Your task to perform on an android device: toggle data saver in the chrome app Image 0: 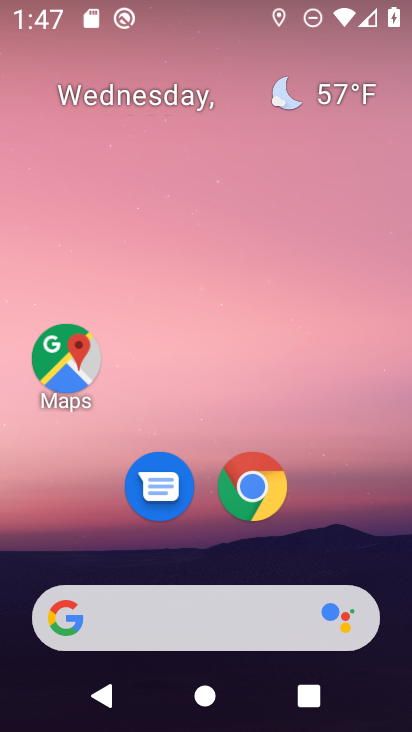
Step 0: drag from (349, 538) to (360, 76)
Your task to perform on an android device: toggle data saver in the chrome app Image 1: 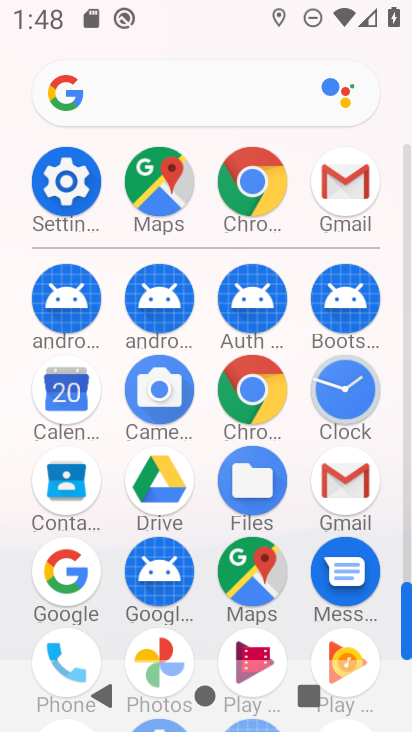
Step 1: click (269, 376)
Your task to perform on an android device: toggle data saver in the chrome app Image 2: 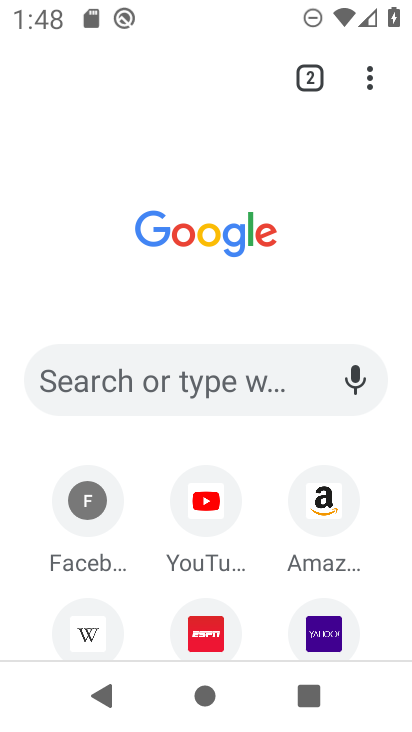
Step 2: click (374, 87)
Your task to perform on an android device: toggle data saver in the chrome app Image 3: 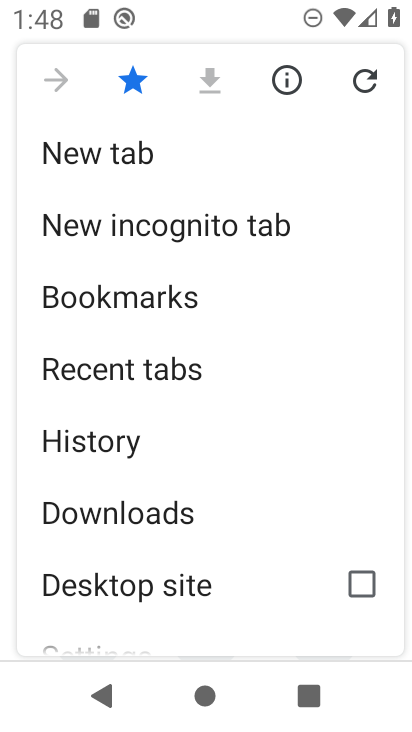
Step 3: drag from (285, 502) to (304, 323)
Your task to perform on an android device: toggle data saver in the chrome app Image 4: 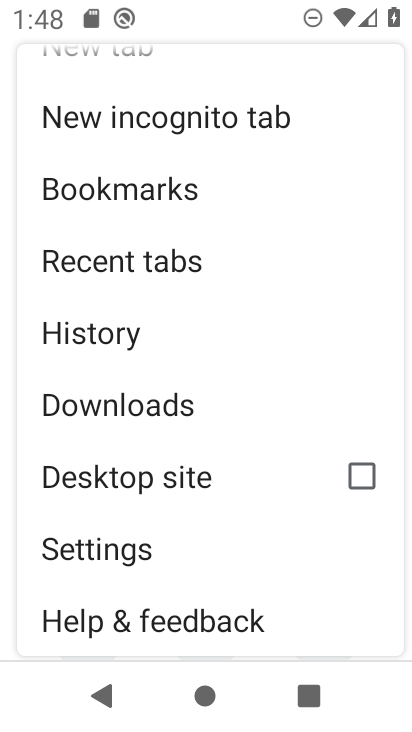
Step 4: click (192, 550)
Your task to perform on an android device: toggle data saver in the chrome app Image 5: 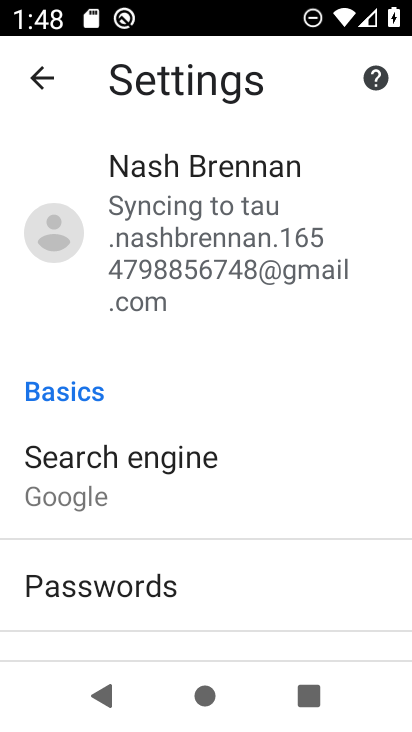
Step 5: drag from (282, 573) to (303, 474)
Your task to perform on an android device: toggle data saver in the chrome app Image 6: 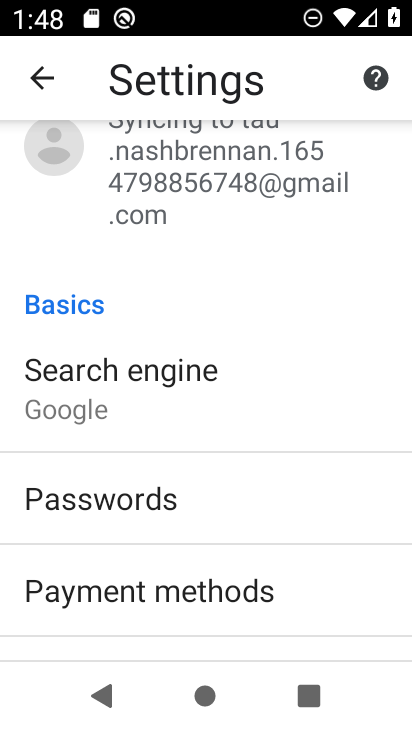
Step 6: drag from (317, 602) to (327, 478)
Your task to perform on an android device: toggle data saver in the chrome app Image 7: 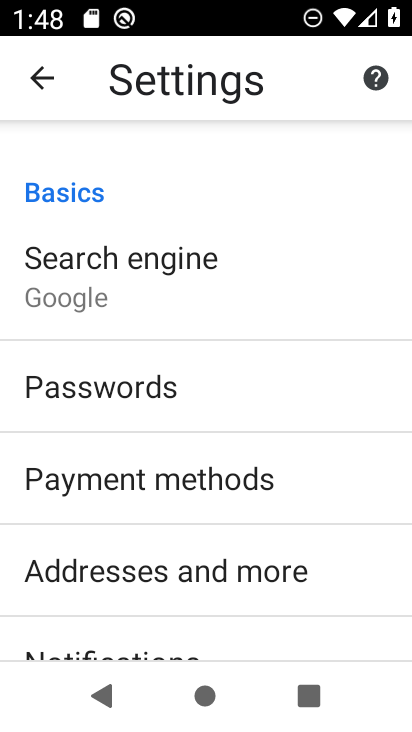
Step 7: drag from (334, 589) to (340, 455)
Your task to perform on an android device: toggle data saver in the chrome app Image 8: 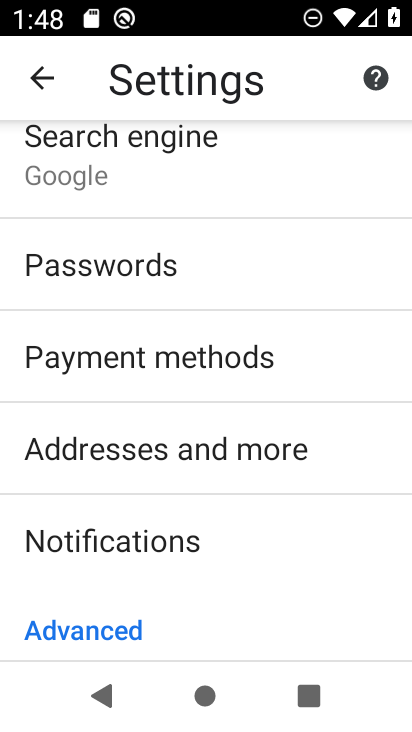
Step 8: drag from (306, 582) to (309, 467)
Your task to perform on an android device: toggle data saver in the chrome app Image 9: 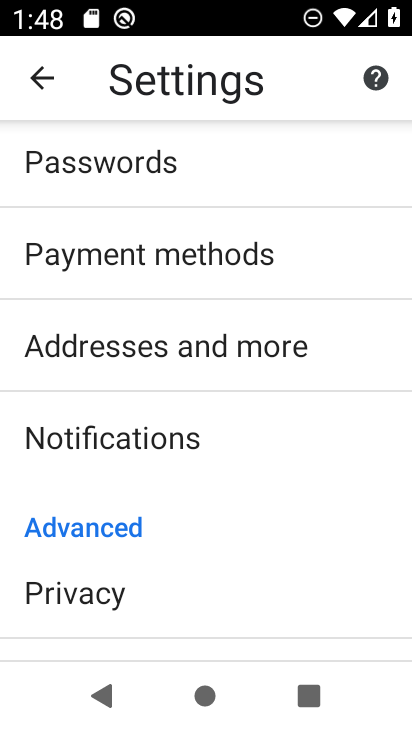
Step 9: drag from (283, 583) to (291, 497)
Your task to perform on an android device: toggle data saver in the chrome app Image 10: 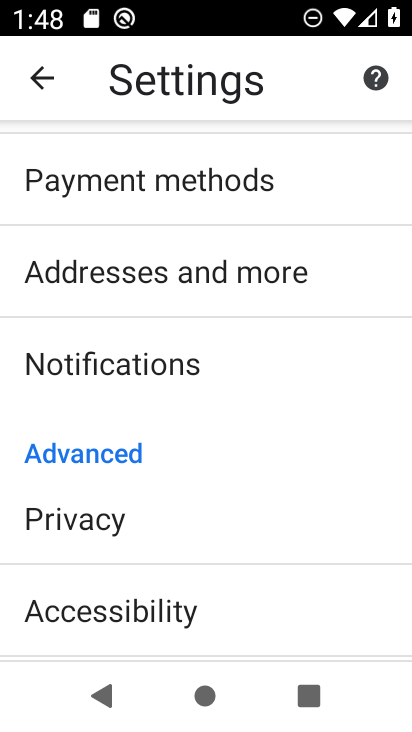
Step 10: drag from (267, 573) to (272, 498)
Your task to perform on an android device: toggle data saver in the chrome app Image 11: 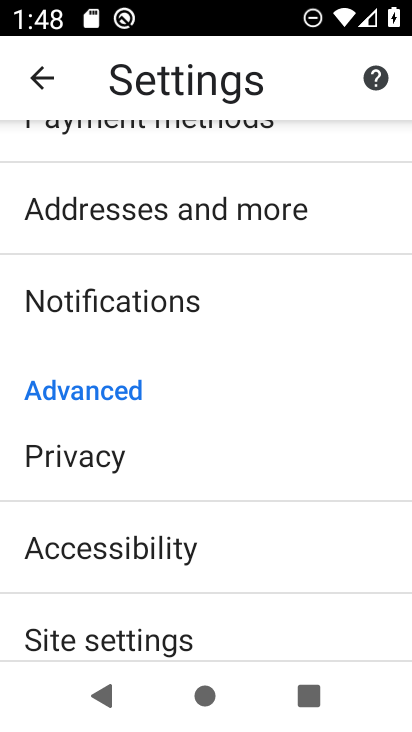
Step 11: drag from (264, 580) to (273, 480)
Your task to perform on an android device: toggle data saver in the chrome app Image 12: 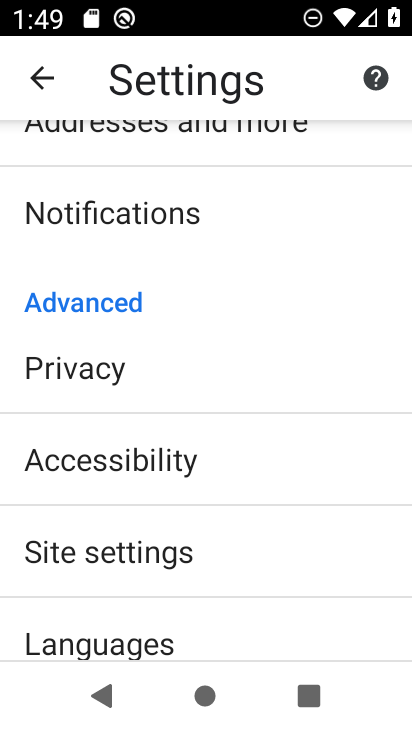
Step 12: drag from (285, 561) to (284, 464)
Your task to perform on an android device: toggle data saver in the chrome app Image 13: 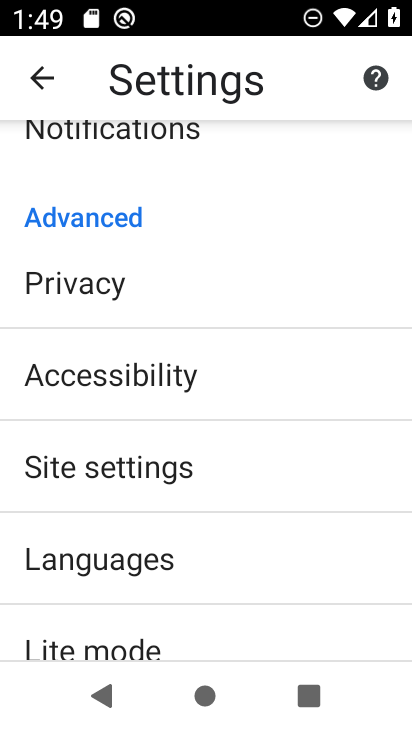
Step 13: drag from (259, 596) to (268, 488)
Your task to perform on an android device: toggle data saver in the chrome app Image 14: 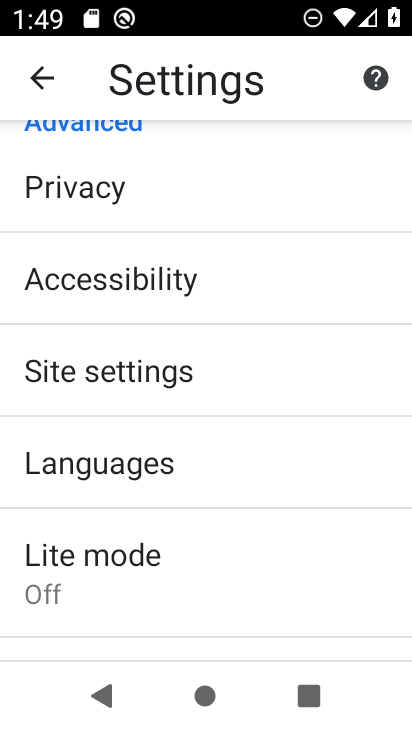
Step 14: click (266, 556)
Your task to perform on an android device: toggle data saver in the chrome app Image 15: 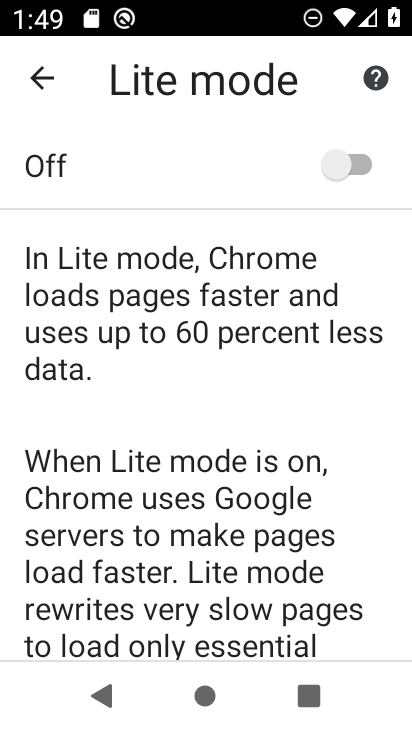
Step 15: click (315, 161)
Your task to perform on an android device: toggle data saver in the chrome app Image 16: 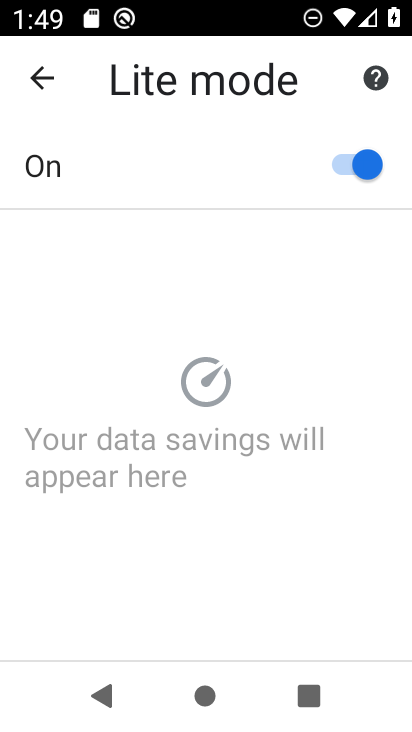
Step 16: task complete